Your task to perform on an android device: toggle show notifications on the lock screen Image 0: 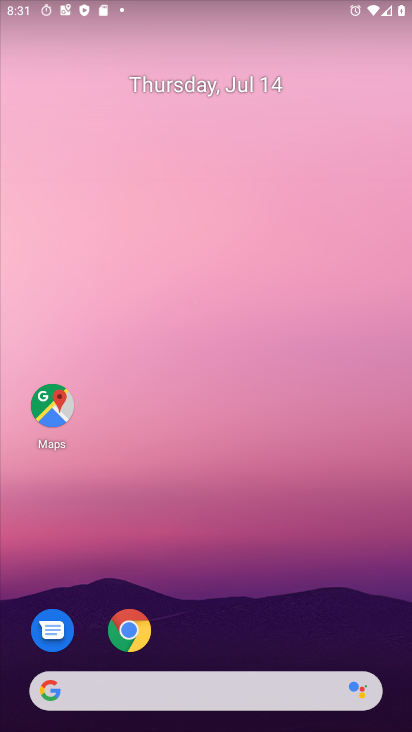
Step 0: drag from (220, 686) to (184, 194)
Your task to perform on an android device: toggle show notifications on the lock screen Image 1: 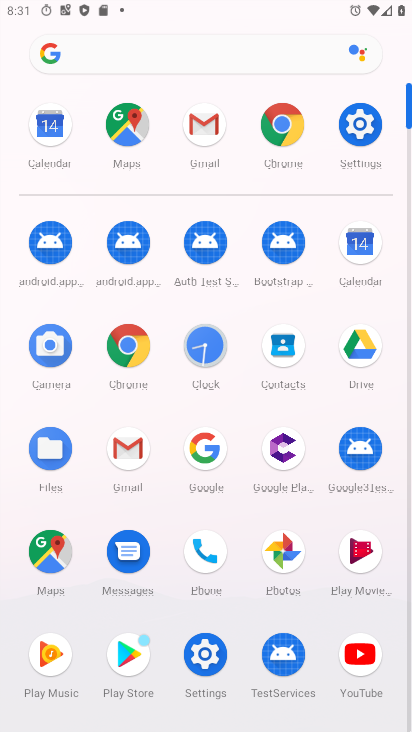
Step 1: click (365, 120)
Your task to perform on an android device: toggle show notifications on the lock screen Image 2: 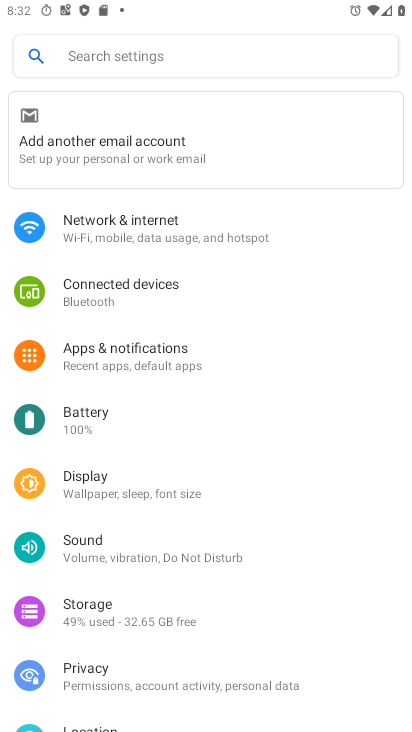
Step 2: click (101, 356)
Your task to perform on an android device: toggle show notifications on the lock screen Image 3: 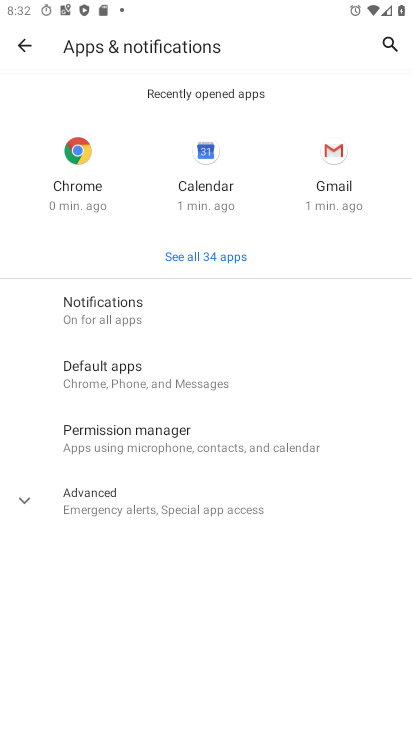
Step 3: click (96, 312)
Your task to perform on an android device: toggle show notifications on the lock screen Image 4: 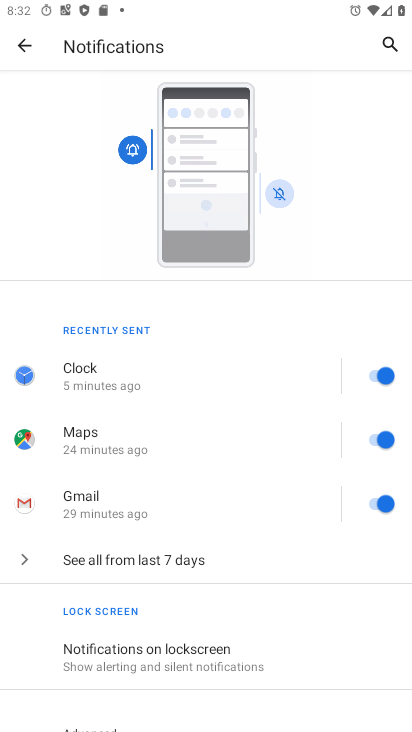
Step 4: drag from (266, 674) to (242, 485)
Your task to perform on an android device: toggle show notifications on the lock screen Image 5: 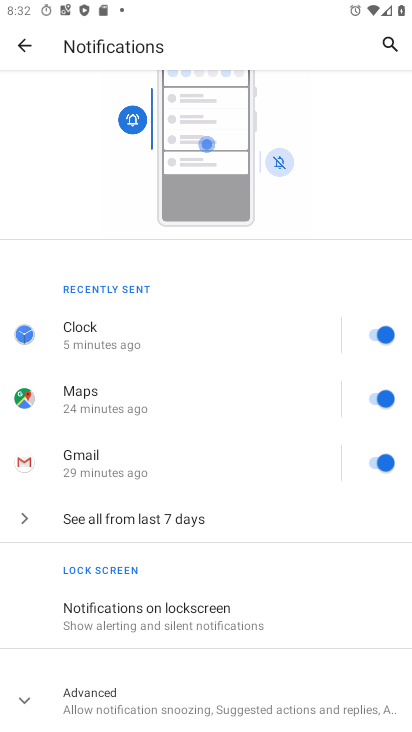
Step 5: click (151, 608)
Your task to perform on an android device: toggle show notifications on the lock screen Image 6: 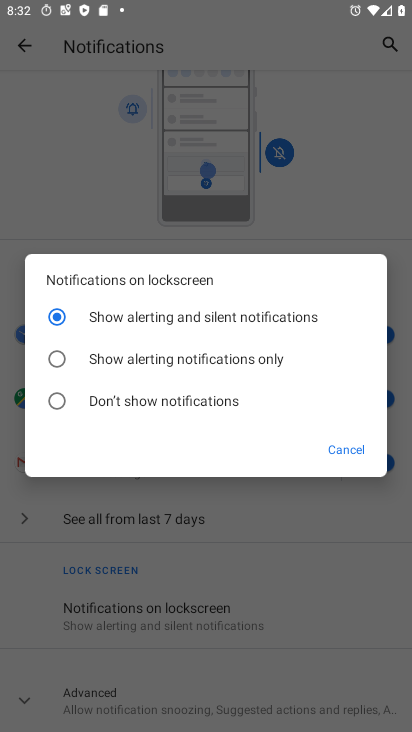
Step 6: click (55, 351)
Your task to perform on an android device: toggle show notifications on the lock screen Image 7: 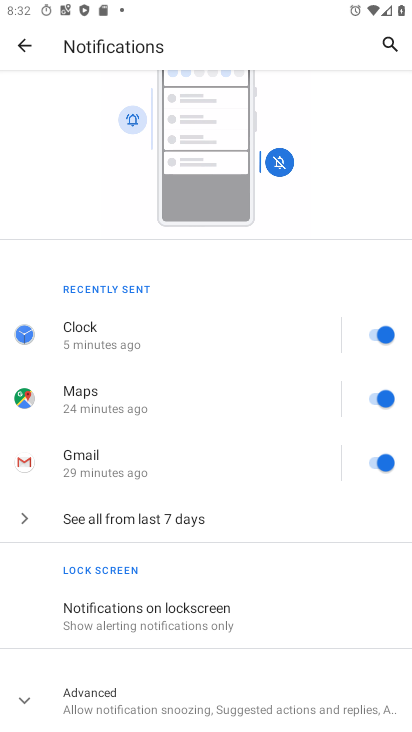
Step 7: task complete